Your task to perform on an android device: What is the news today? Image 0: 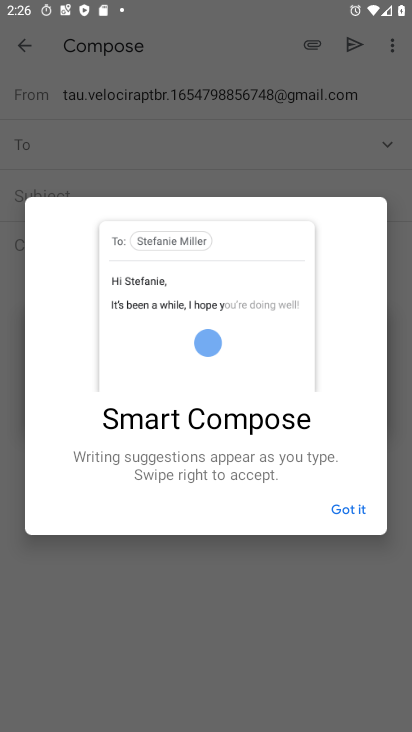
Step 0: press home button
Your task to perform on an android device: What is the news today? Image 1: 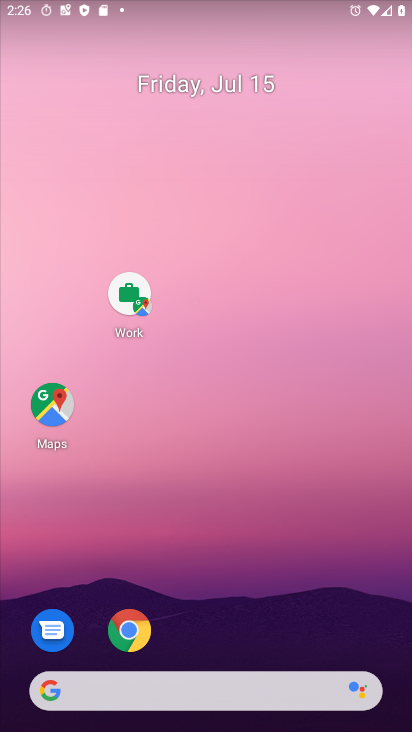
Step 1: drag from (215, 626) to (224, 237)
Your task to perform on an android device: What is the news today? Image 2: 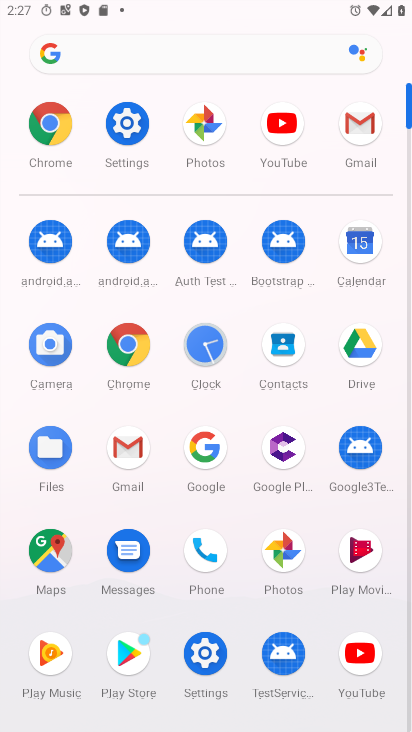
Step 2: click (214, 453)
Your task to perform on an android device: What is the news today? Image 3: 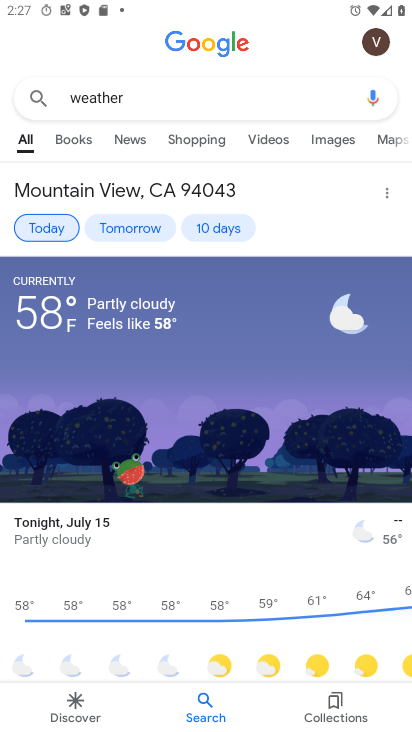
Step 3: click (145, 105)
Your task to perform on an android device: What is the news today? Image 4: 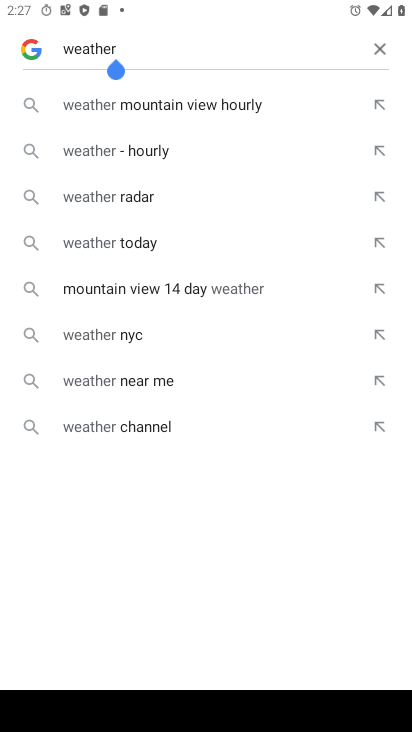
Step 4: click (373, 43)
Your task to perform on an android device: What is the news today? Image 5: 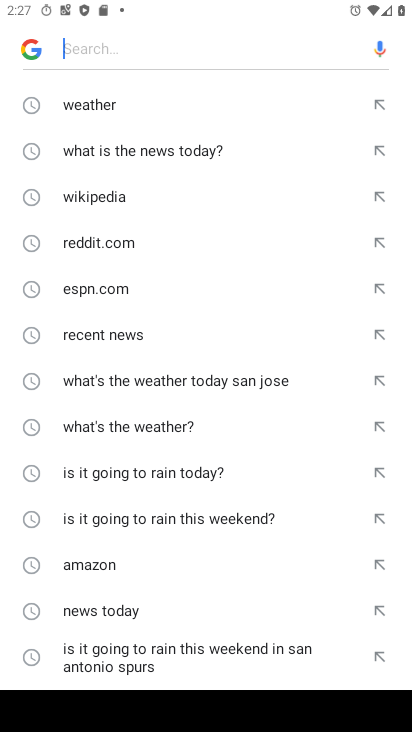
Step 5: click (105, 606)
Your task to perform on an android device: What is the news today? Image 6: 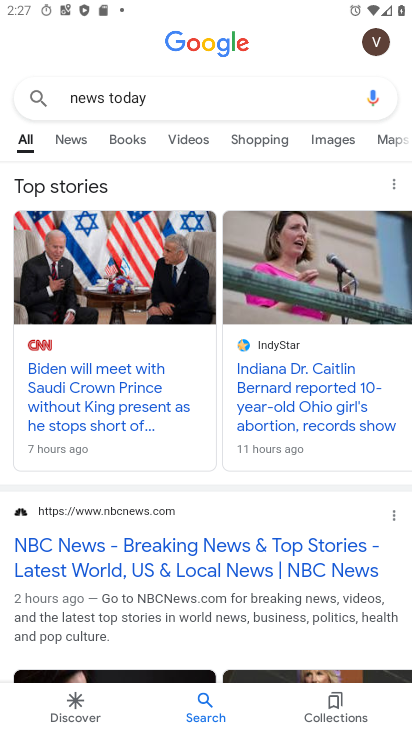
Step 6: click (72, 145)
Your task to perform on an android device: What is the news today? Image 7: 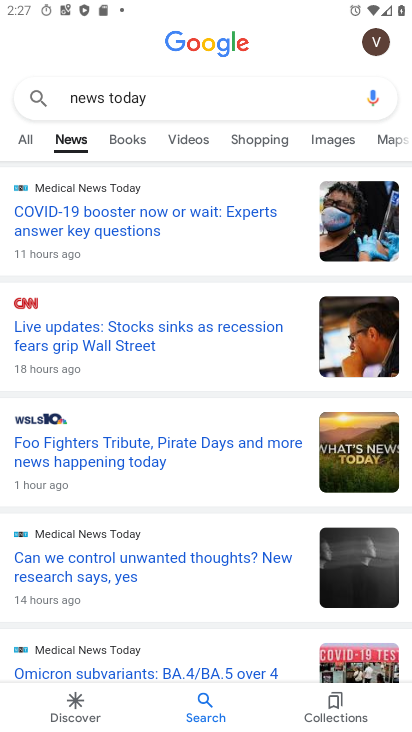
Step 7: task complete